Your task to perform on an android device: toggle airplane mode Image 0: 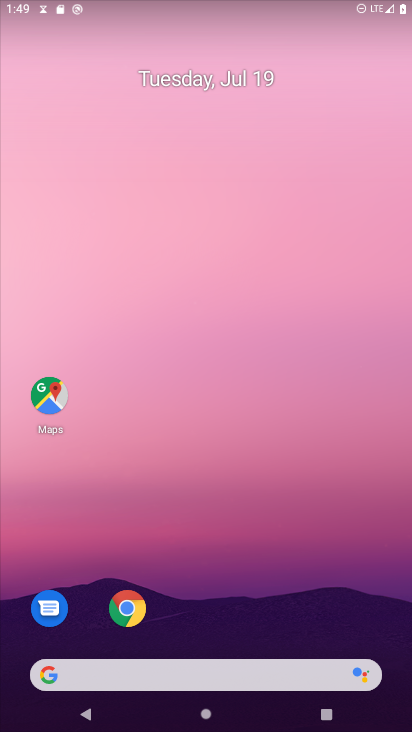
Step 0: drag from (193, 504) to (197, 73)
Your task to perform on an android device: toggle airplane mode Image 1: 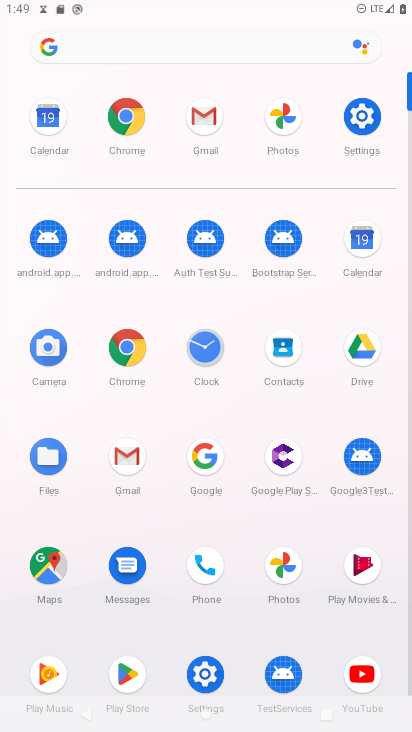
Step 1: click (347, 114)
Your task to perform on an android device: toggle airplane mode Image 2: 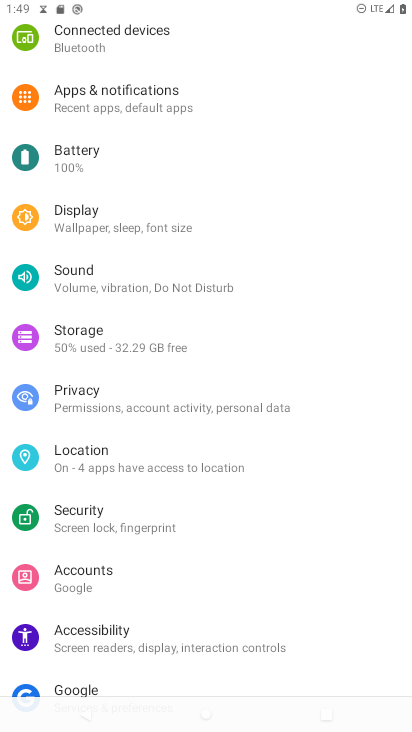
Step 2: drag from (148, 131) to (148, 590)
Your task to perform on an android device: toggle airplane mode Image 3: 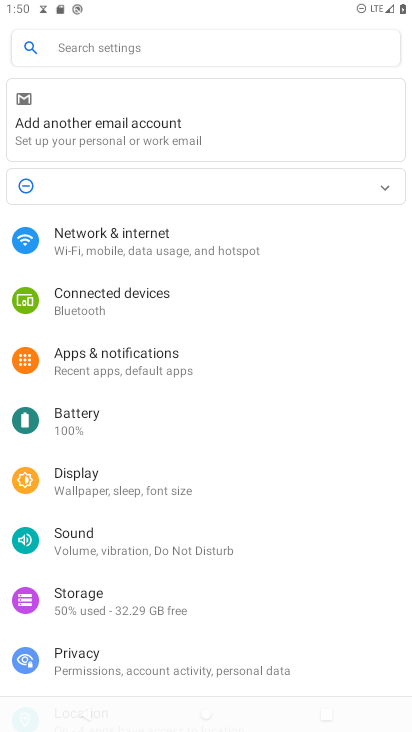
Step 3: click (204, 251)
Your task to perform on an android device: toggle airplane mode Image 4: 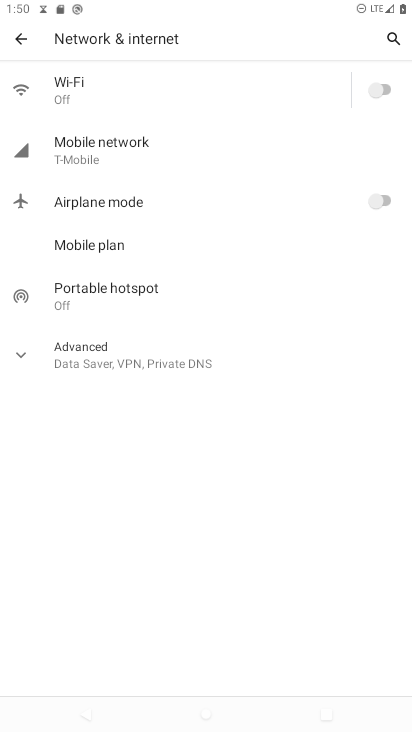
Step 4: click (383, 197)
Your task to perform on an android device: toggle airplane mode Image 5: 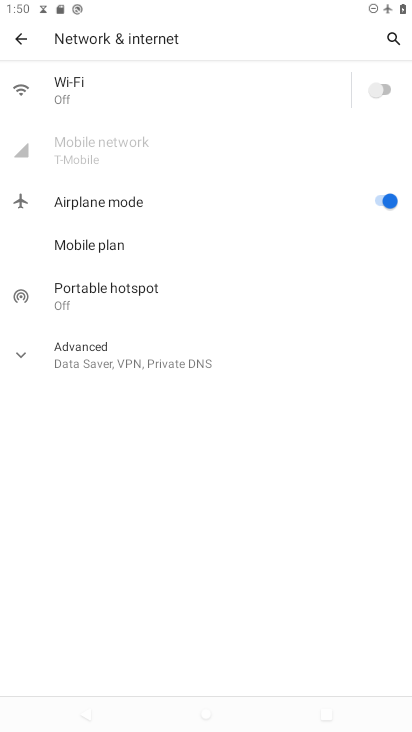
Step 5: task complete